Your task to perform on an android device: turn off javascript in the chrome app Image 0: 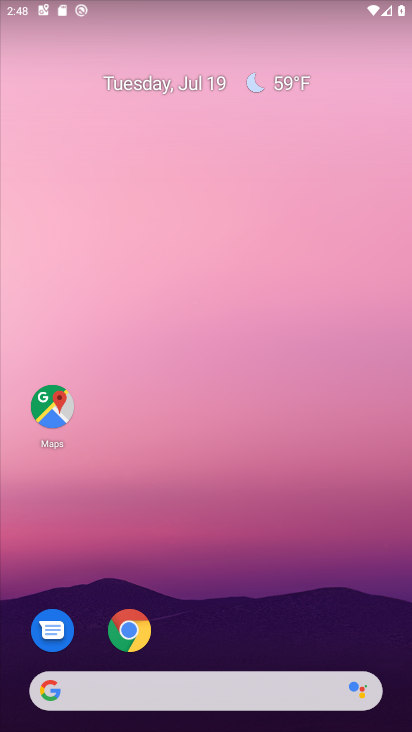
Step 0: click (132, 634)
Your task to perform on an android device: turn off javascript in the chrome app Image 1: 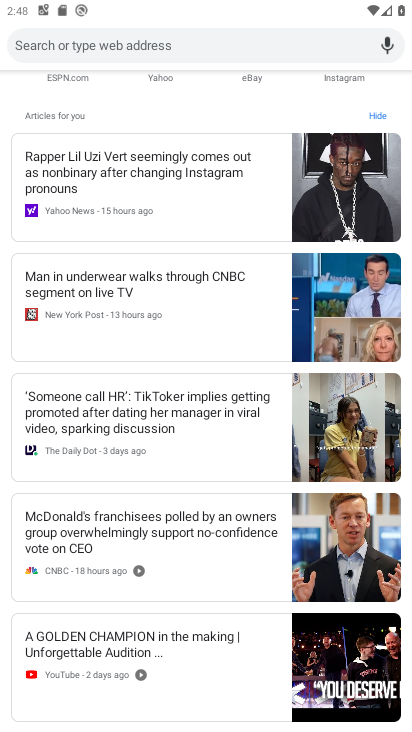
Step 1: drag from (246, 106) to (246, 413)
Your task to perform on an android device: turn off javascript in the chrome app Image 2: 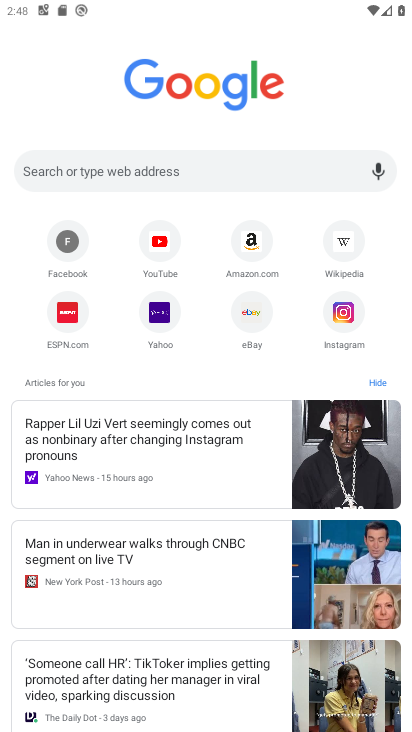
Step 2: click (391, 34)
Your task to perform on an android device: turn off javascript in the chrome app Image 3: 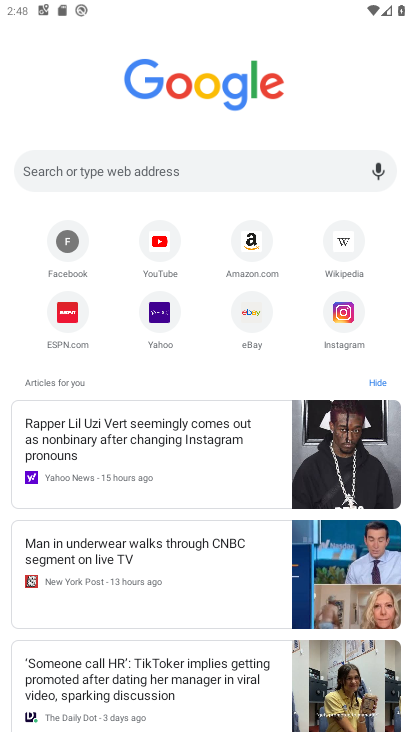
Step 3: click (387, 159)
Your task to perform on an android device: turn off javascript in the chrome app Image 4: 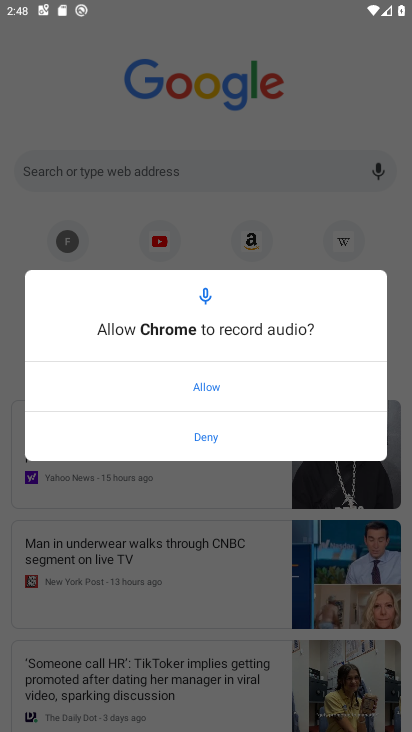
Step 4: click (152, 246)
Your task to perform on an android device: turn off javascript in the chrome app Image 5: 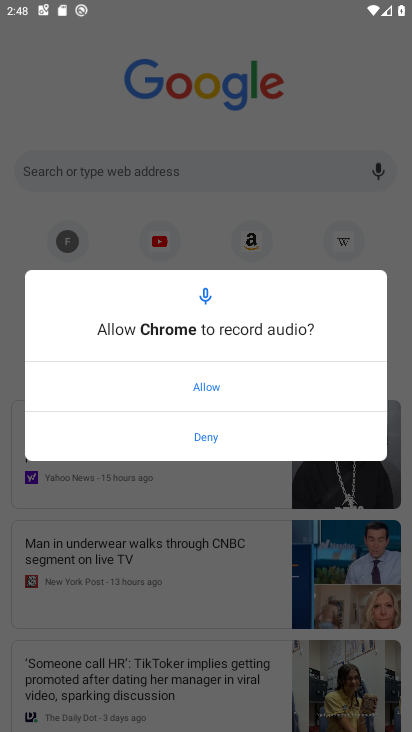
Step 5: click (152, 246)
Your task to perform on an android device: turn off javascript in the chrome app Image 6: 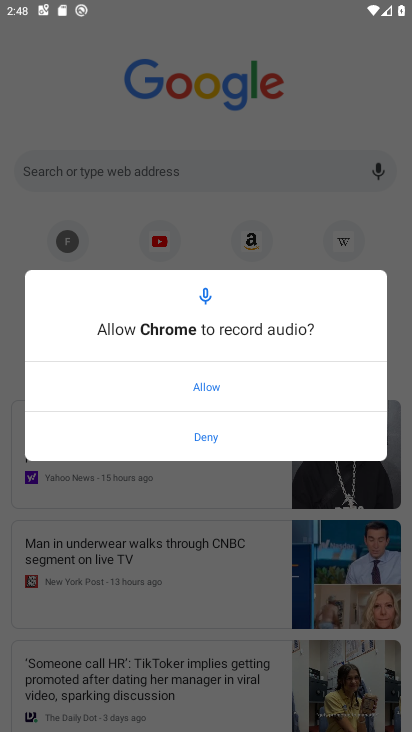
Step 6: click (220, 435)
Your task to perform on an android device: turn off javascript in the chrome app Image 7: 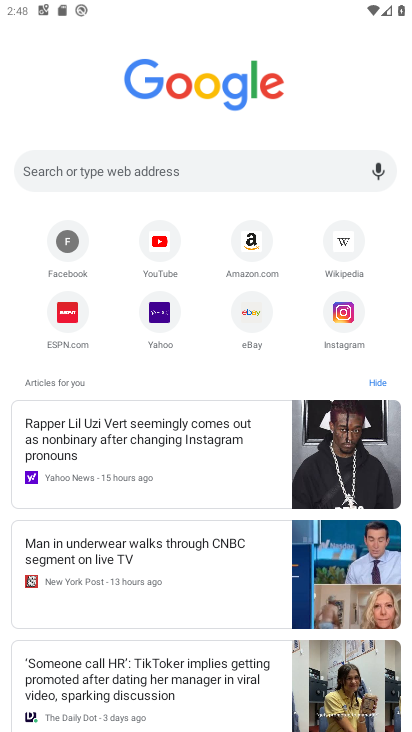
Step 7: click (159, 243)
Your task to perform on an android device: turn off javascript in the chrome app Image 8: 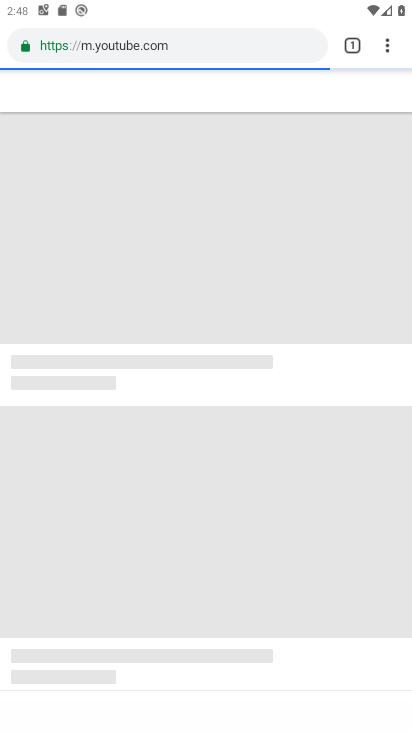
Step 8: click (391, 37)
Your task to perform on an android device: turn off javascript in the chrome app Image 9: 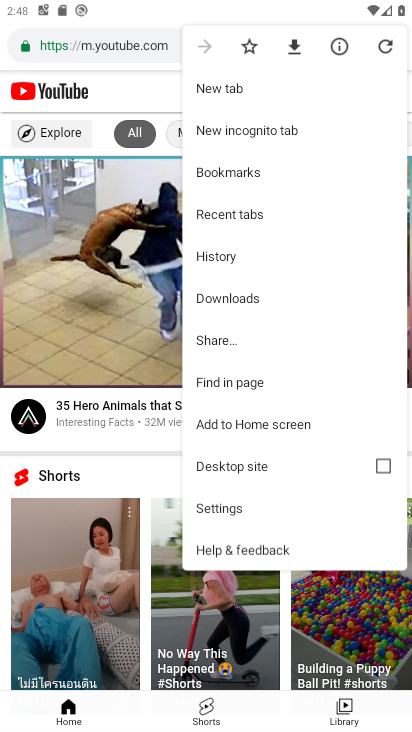
Step 9: click (229, 508)
Your task to perform on an android device: turn off javascript in the chrome app Image 10: 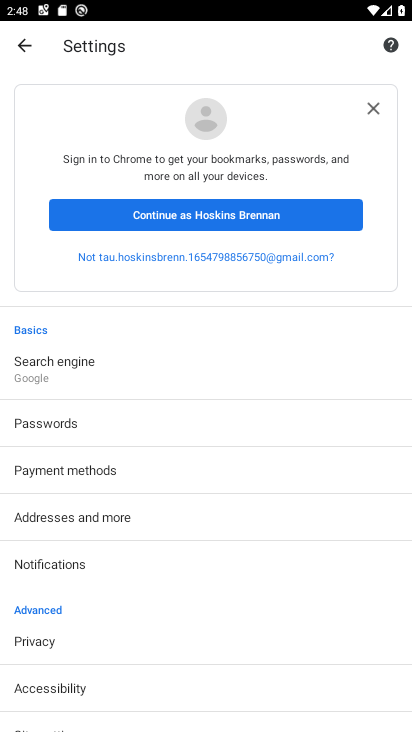
Step 10: drag from (143, 606) to (167, 341)
Your task to perform on an android device: turn off javascript in the chrome app Image 11: 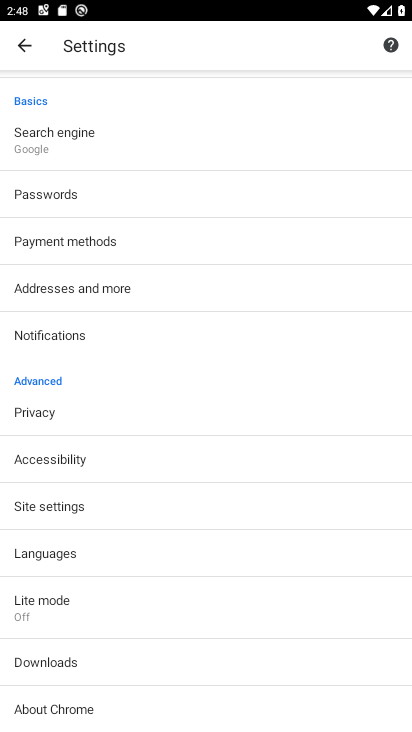
Step 11: click (45, 507)
Your task to perform on an android device: turn off javascript in the chrome app Image 12: 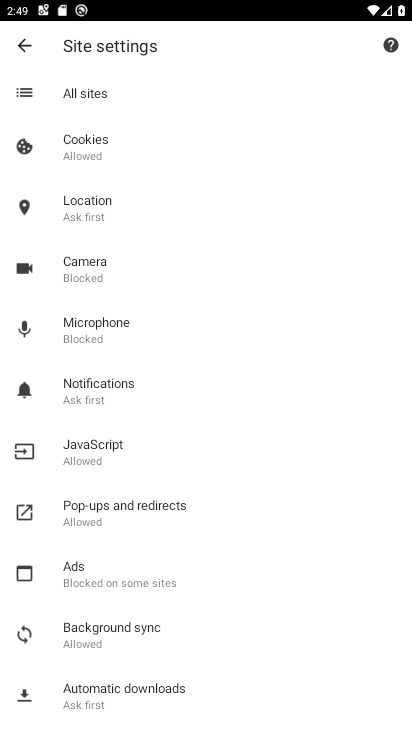
Step 12: click (81, 443)
Your task to perform on an android device: turn off javascript in the chrome app Image 13: 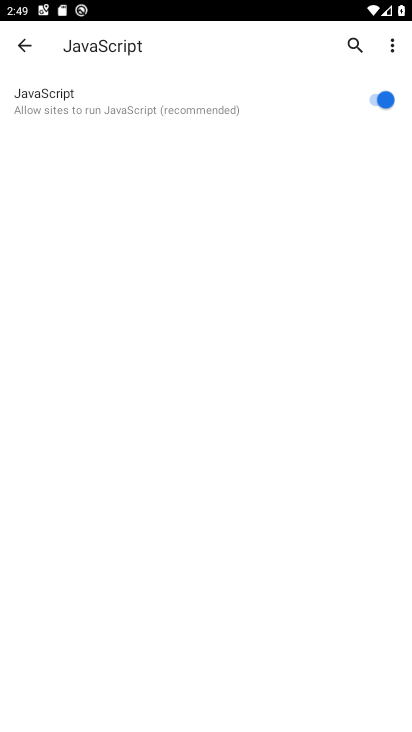
Step 13: click (379, 100)
Your task to perform on an android device: turn off javascript in the chrome app Image 14: 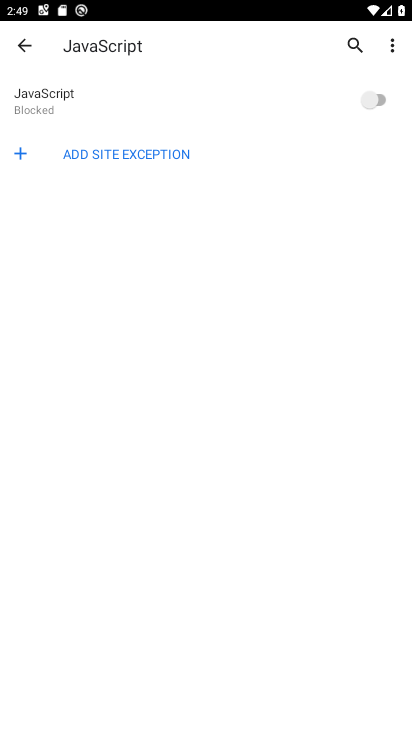
Step 14: task complete